Your task to perform on an android device: toggle pop-ups in chrome Image 0: 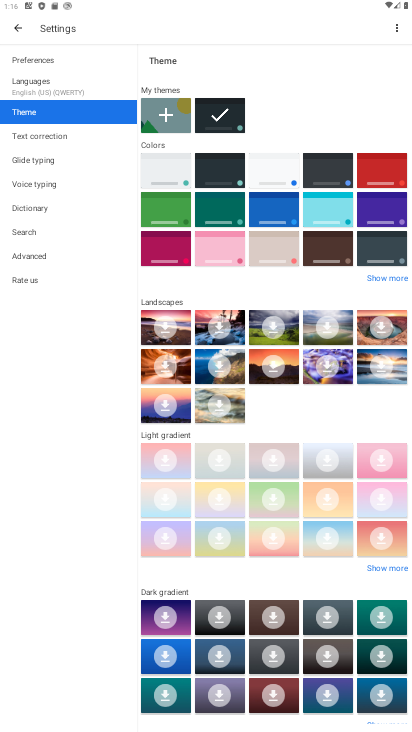
Step 0: press home button
Your task to perform on an android device: toggle pop-ups in chrome Image 1: 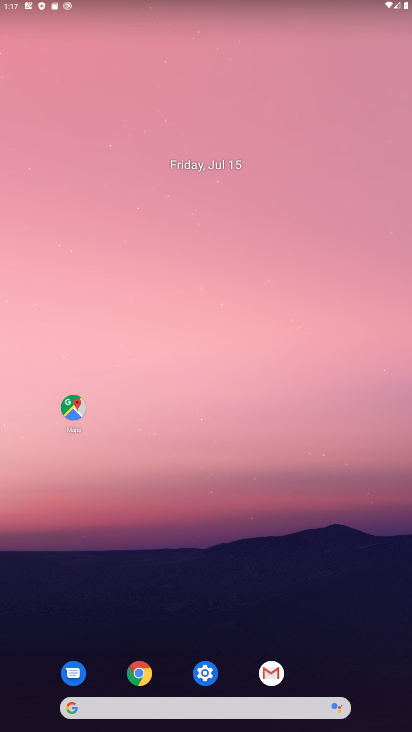
Step 1: click (143, 670)
Your task to perform on an android device: toggle pop-ups in chrome Image 2: 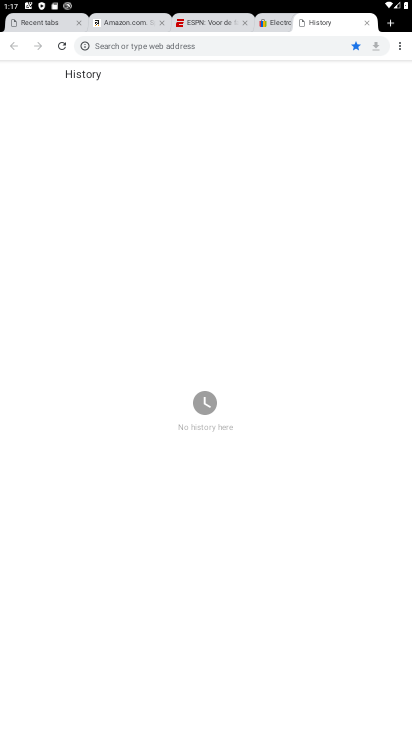
Step 2: click (399, 51)
Your task to perform on an android device: toggle pop-ups in chrome Image 3: 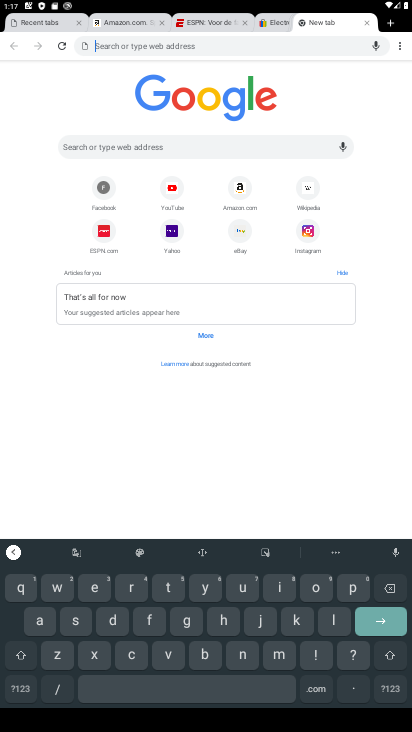
Step 3: click (398, 49)
Your task to perform on an android device: toggle pop-ups in chrome Image 4: 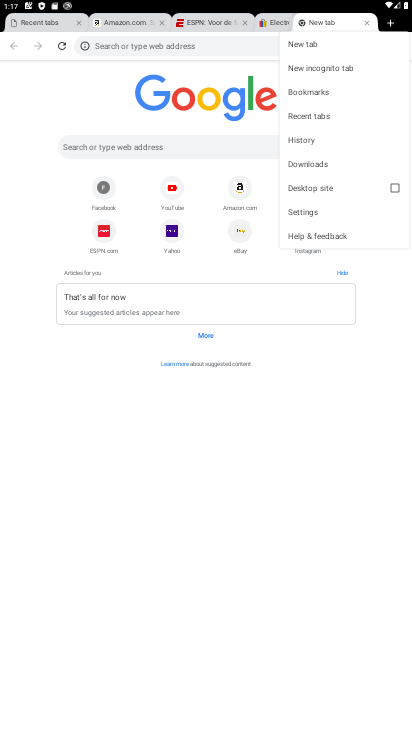
Step 4: click (308, 214)
Your task to perform on an android device: toggle pop-ups in chrome Image 5: 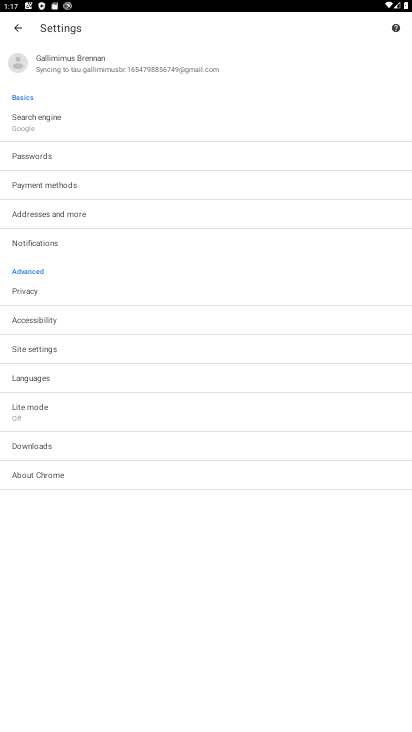
Step 5: click (87, 345)
Your task to perform on an android device: toggle pop-ups in chrome Image 6: 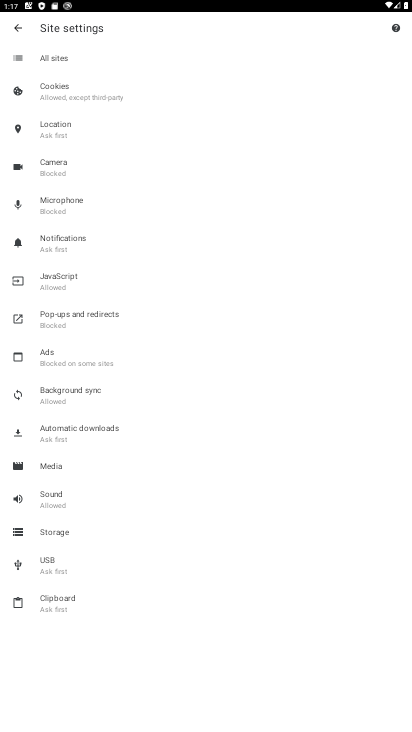
Step 6: click (80, 314)
Your task to perform on an android device: toggle pop-ups in chrome Image 7: 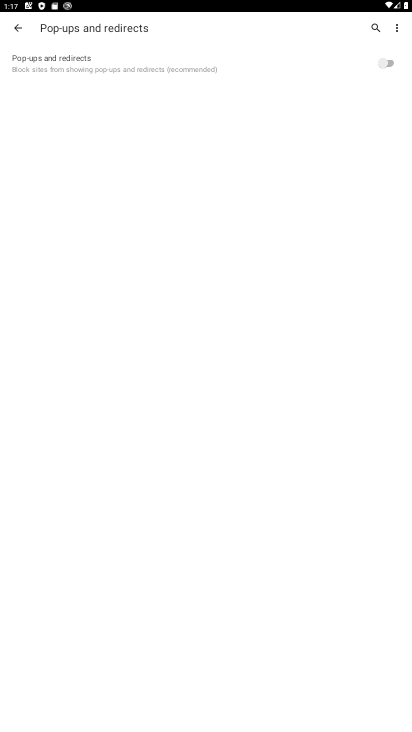
Step 7: click (383, 60)
Your task to perform on an android device: toggle pop-ups in chrome Image 8: 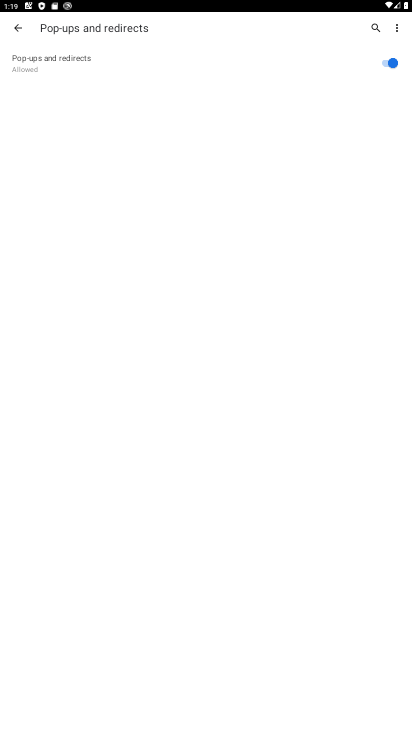
Step 8: task complete